Your task to perform on an android device: Search for Italian restaurants on Maps Image 0: 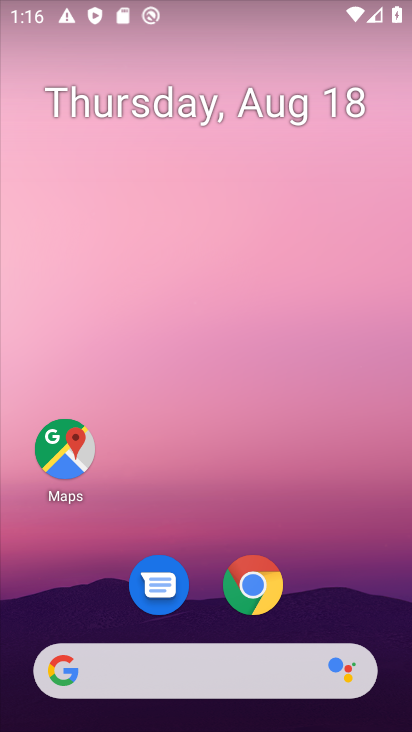
Step 0: click (67, 448)
Your task to perform on an android device: Search for Italian restaurants on Maps Image 1: 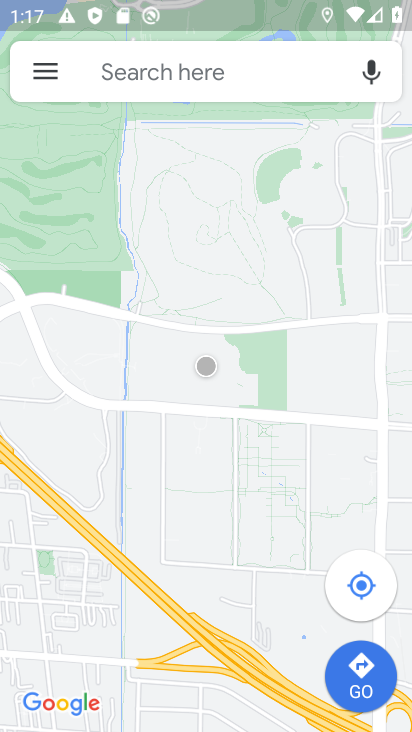
Step 1: click (255, 72)
Your task to perform on an android device: Search for Italian restaurants on Maps Image 2: 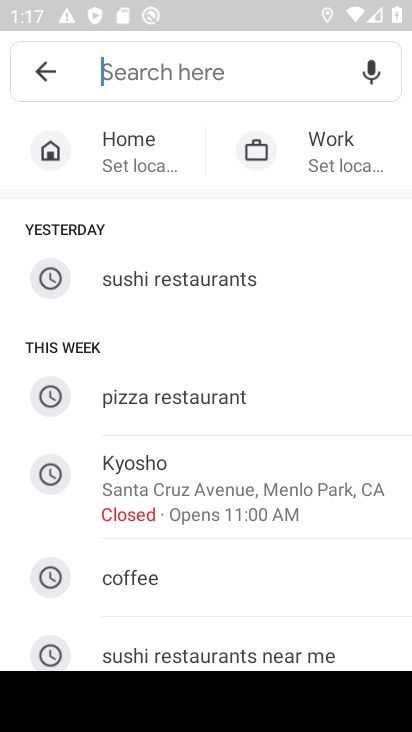
Step 2: drag from (229, 547) to (227, 229)
Your task to perform on an android device: Search for Italian restaurants on Maps Image 3: 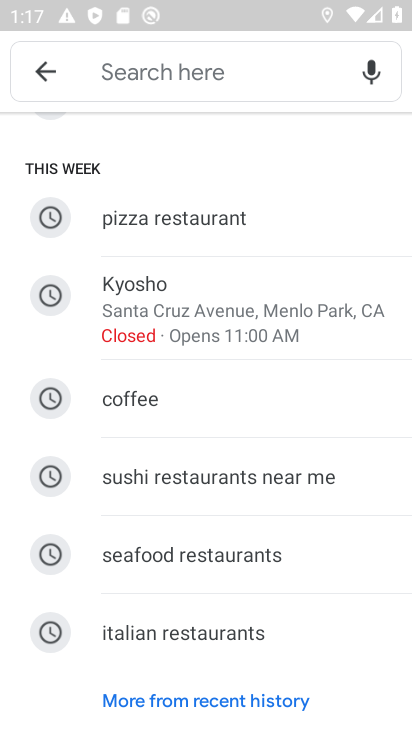
Step 3: click (221, 627)
Your task to perform on an android device: Search for Italian restaurants on Maps Image 4: 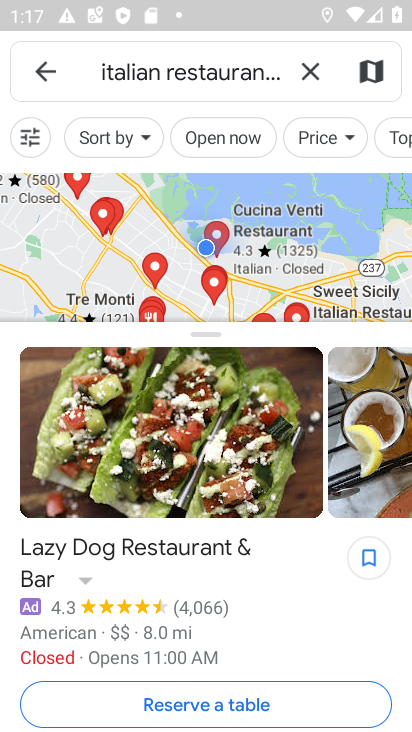
Step 4: task complete